Your task to perform on an android device: toggle data saver in the chrome app Image 0: 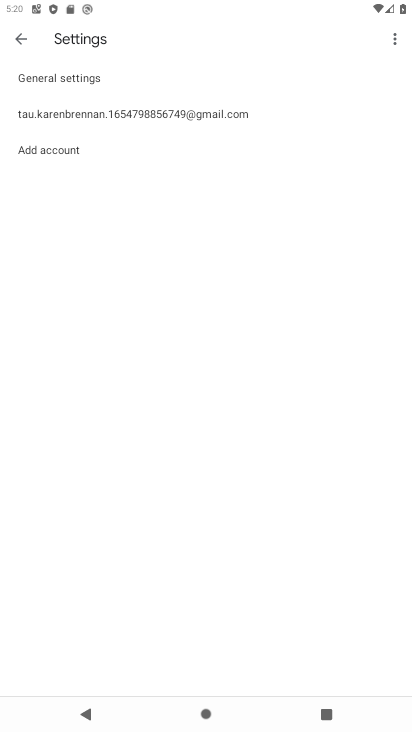
Step 0: press home button
Your task to perform on an android device: toggle data saver in the chrome app Image 1: 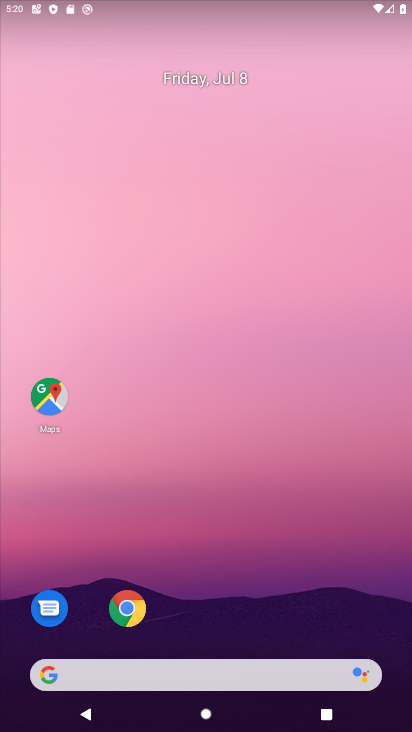
Step 1: drag from (247, 671) to (330, 125)
Your task to perform on an android device: toggle data saver in the chrome app Image 2: 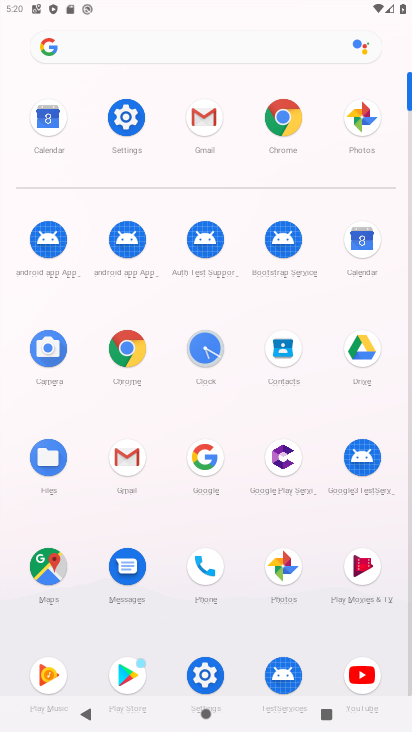
Step 2: click (142, 354)
Your task to perform on an android device: toggle data saver in the chrome app Image 3: 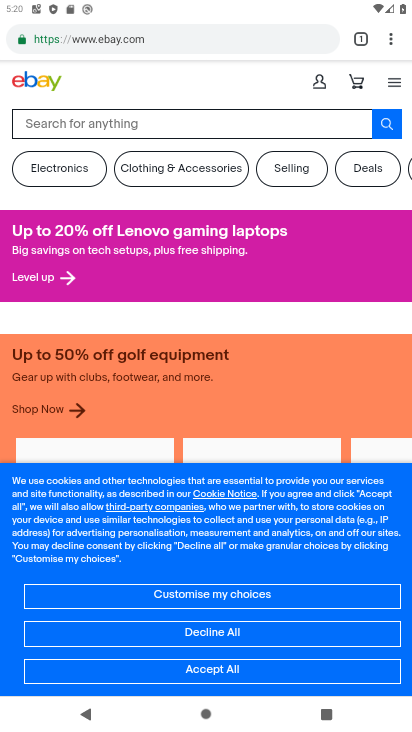
Step 3: drag from (393, 36) to (221, 463)
Your task to perform on an android device: toggle data saver in the chrome app Image 4: 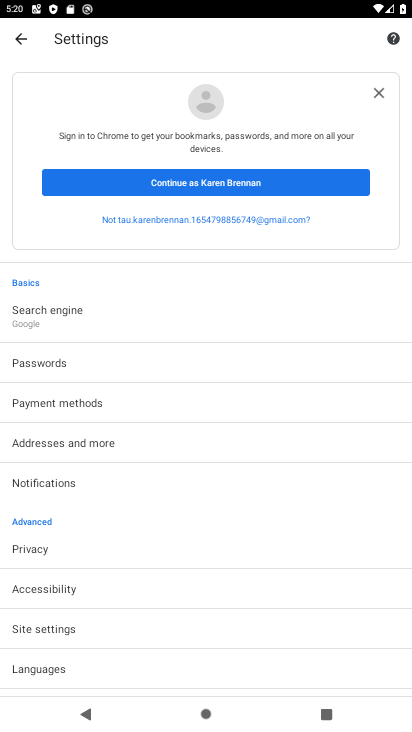
Step 4: drag from (186, 619) to (225, 337)
Your task to perform on an android device: toggle data saver in the chrome app Image 5: 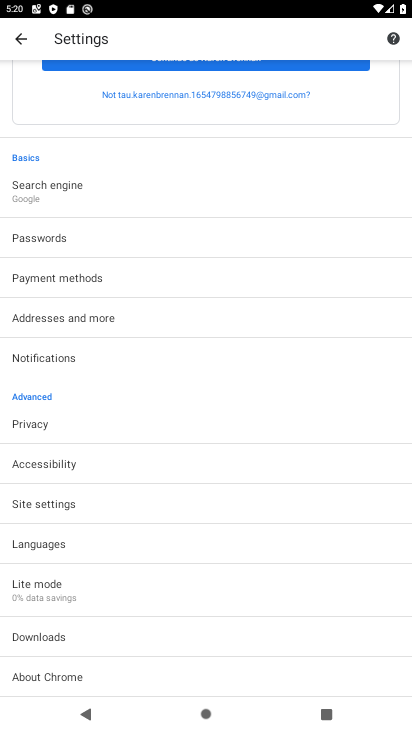
Step 5: click (59, 583)
Your task to perform on an android device: toggle data saver in the chrome app Image 6: 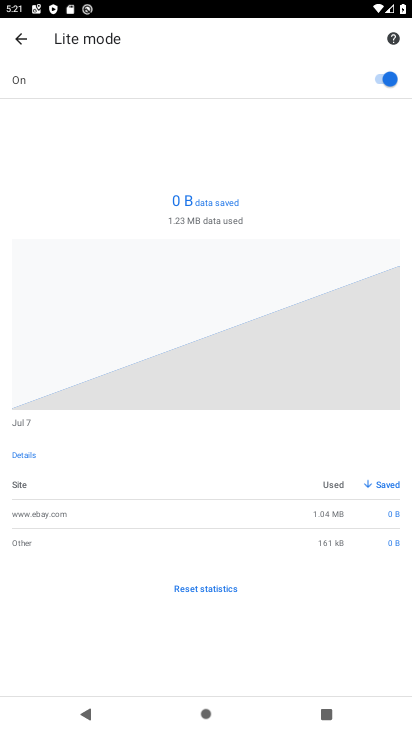
Step 6: click (393, 81)
Your task to perform on an android device: toggle data saver in the chrome app Image 7: 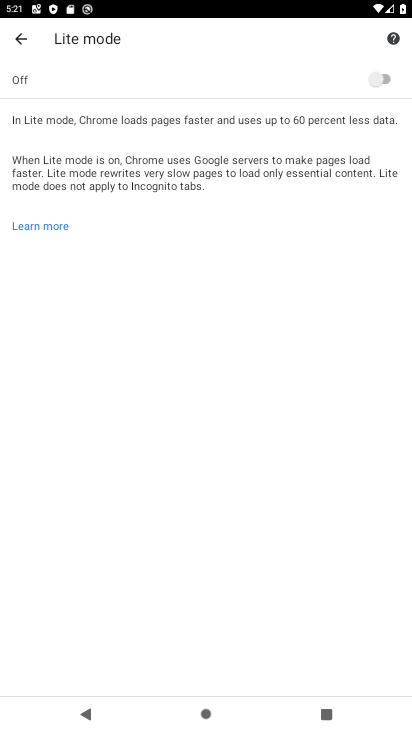
Step 7: task complete